Your task to perform on an android device: Is it going to rain today? Image 0: 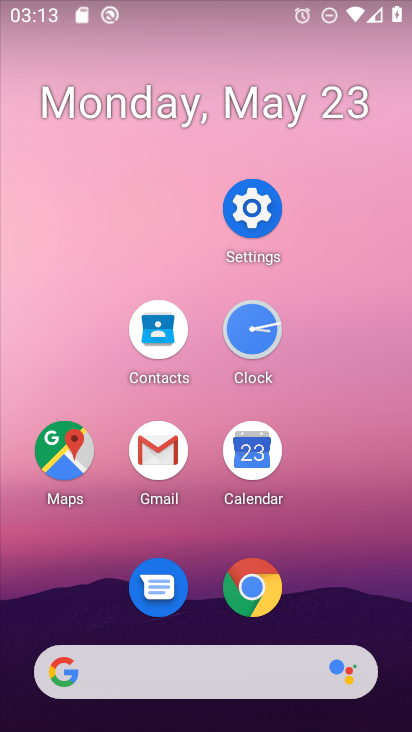
Step 0: click (226, 657)
Your task to perform on an android device: Is it going to rain today? Image 1: 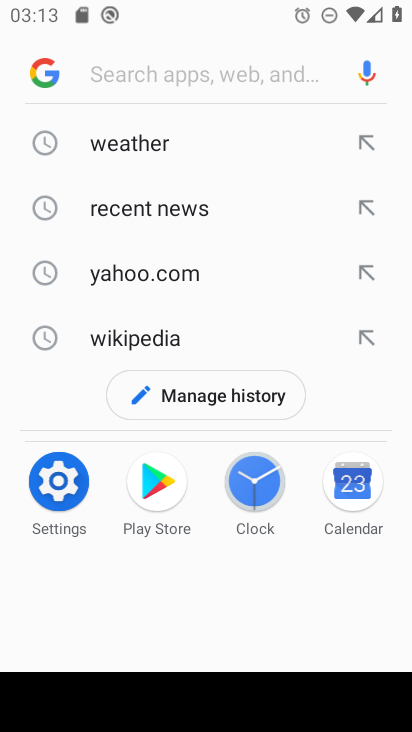
Step 1: click (157, 154)
Your task to perform on an android device: Is it going to rain today? Image 2: 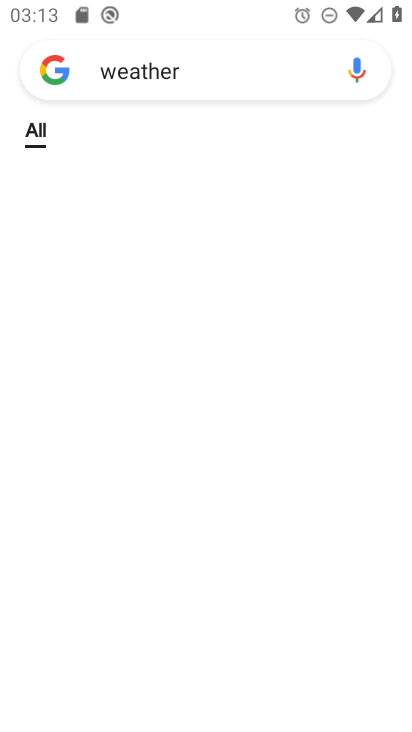
Step 2: task complete